Your task to perform on an android device: open a bookmark in the chrome app Image 0: 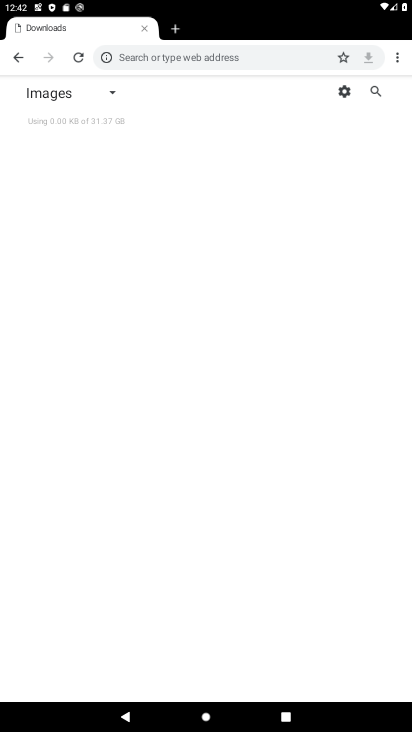
Step 0: press home button
Your task to perform on an android device: open a bookmark in the chrome app Image 1: 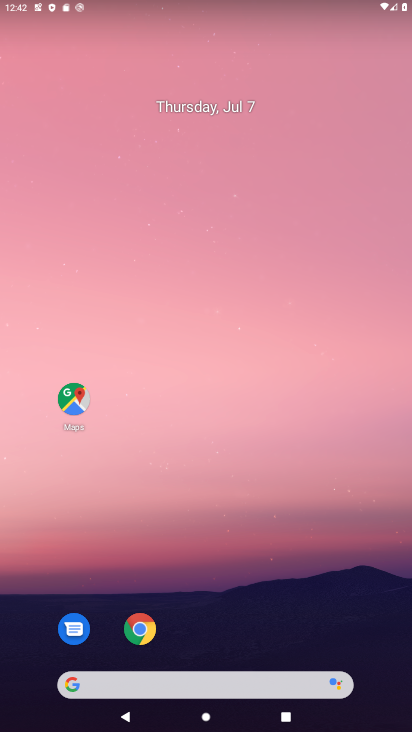
Step 1: click (140, 629)
Your task to perform on an android device: open a bookmark in the chrome app Image 2: 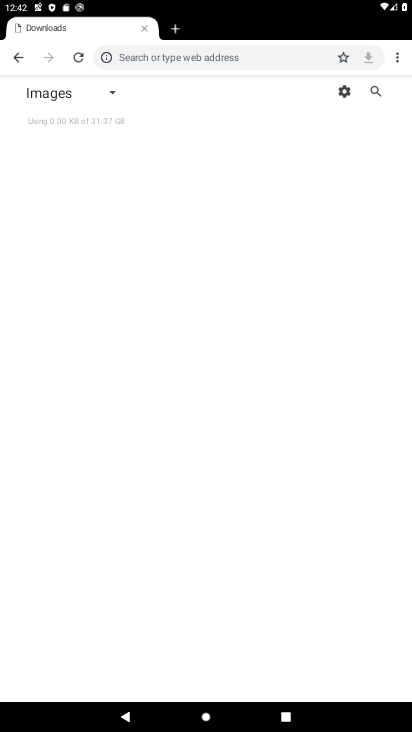
Step 2: click (398, 56)
Your task to perform on an android device: open a bookmark in the chrome app Image 3: 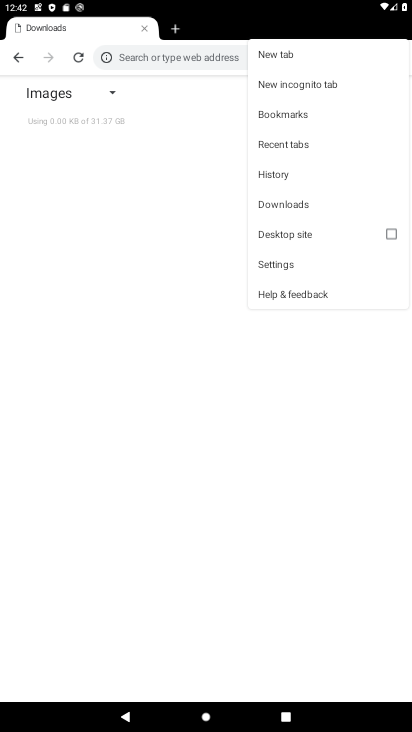
Step 3: click (297, 118)
Your task to perform on an android device: open a bookmark in the chrome app Image 4: 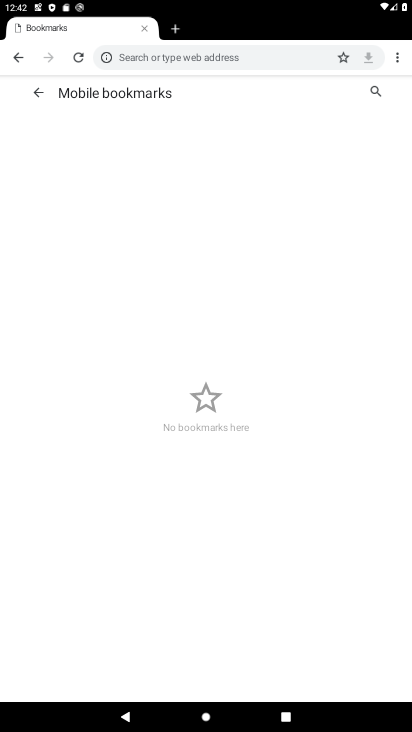
Step 4: task complete